Your task to perform on an android device: toggle translation in the chrome app Image 0: 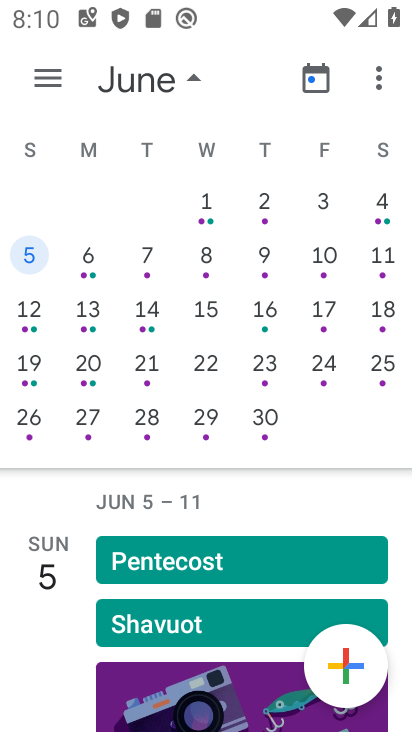
Step 0: press home button
Your task to perform on an android device: toggle translation in the chrome app Image 1: 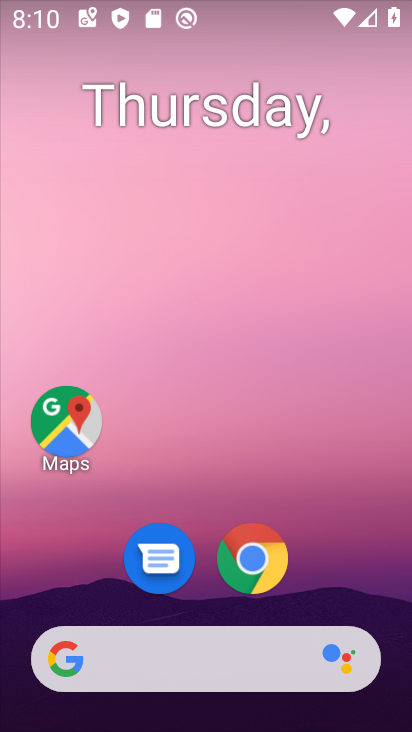
Step 1: click (242, 584)
Your task to perform on an android device: toggle translation in the chrome app Image 2: 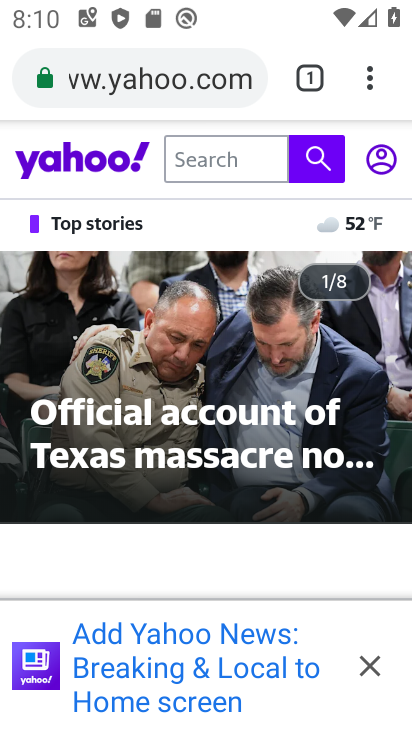
Step 2: click (371, 74)
Your task to perform on an android device: toggle translation in the chrome app Image 3: 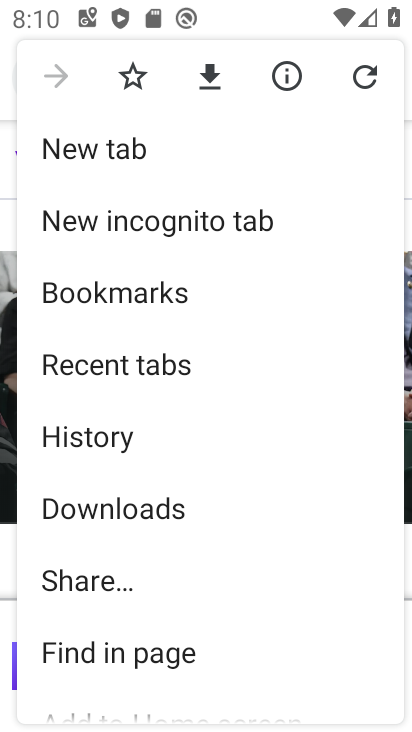
Step 3: drag from (131, 581) to (198, 113)
Your task to perform on an android device: toggle translation in the chrome app Image 4: 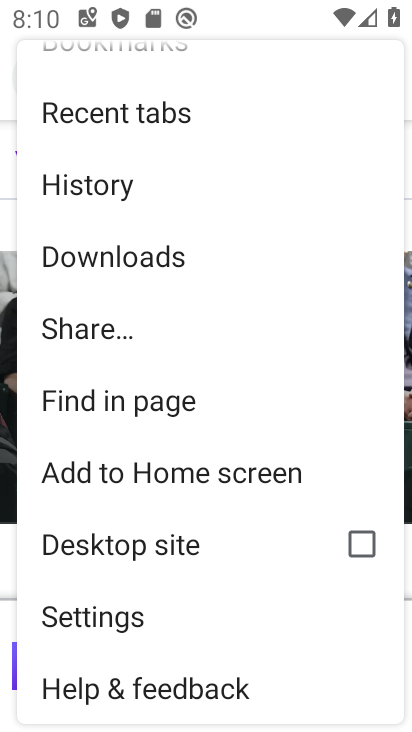
Step 4: click (121, 616)
Your task to perform on an android device: toggle translation in the chrome app Image 5: 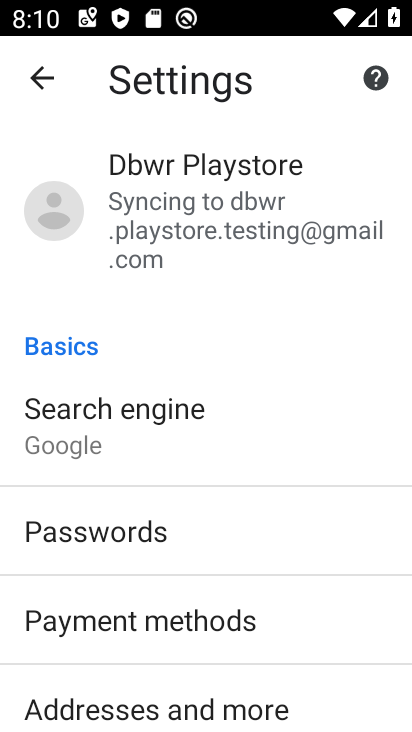
Step 5: drag from (150, 624) to (179, 150)
Your task to perform on an android device: toggle translation in the chrome app Image 6: 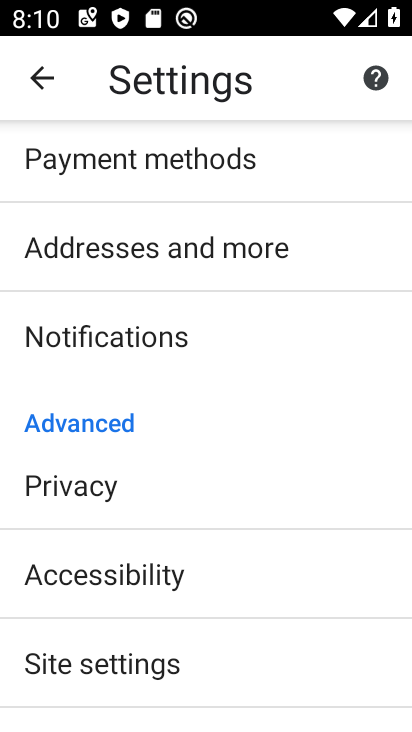
Step 6: drag from (131, 691) to (165, 304)
Your task to perform on an android device: toggle translation in the chrome app Image 7: 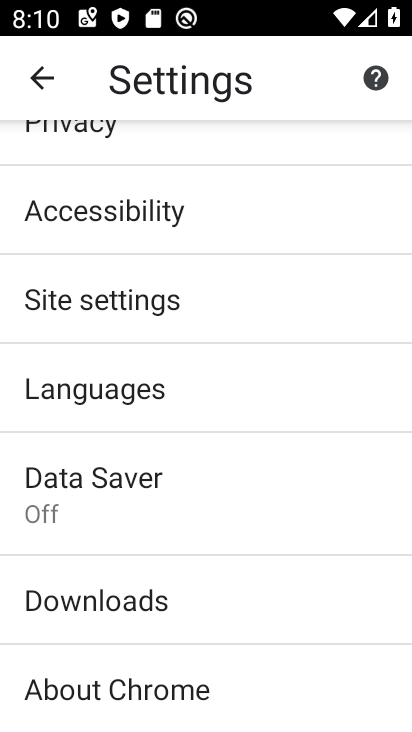
Step 7: click (121, 394)
Your task to perform on an android device: toggle translation in the chrome app Image 8: 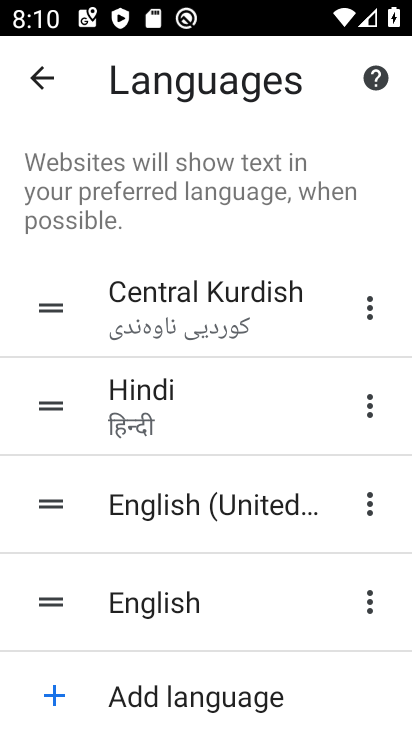
Step 8: drag from (202, 683) to (236, 303)
Your task to perform on an android device: toggle translation in the chrome app Image 9: 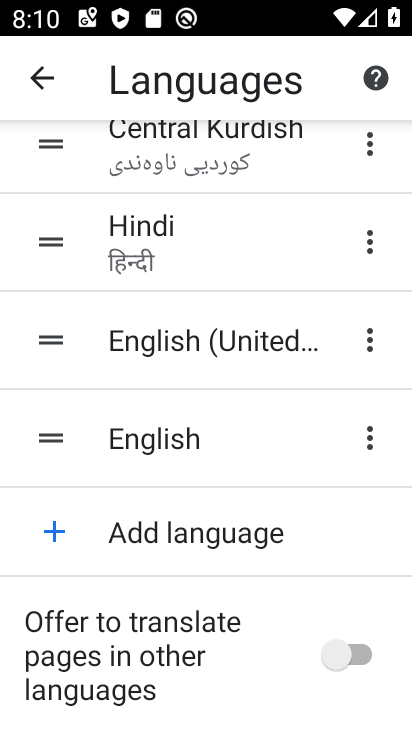
Step 9: click (353, 663)
Your task to perform on an android device: toggle translation in the chrome app Image 10: 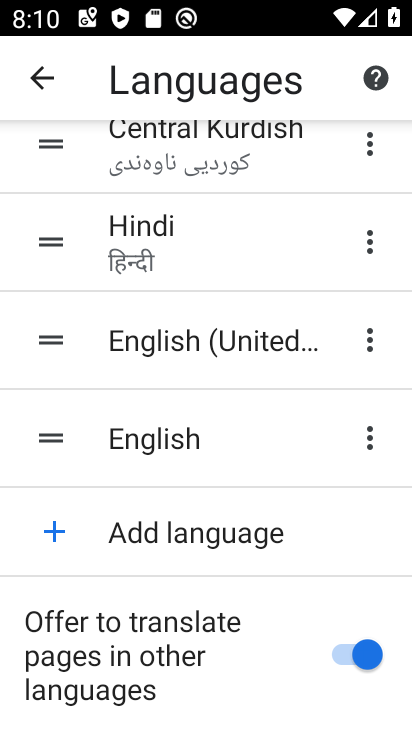
Step 10: task complete